Your task to perform on an android device: toggle notification dots Image 0: 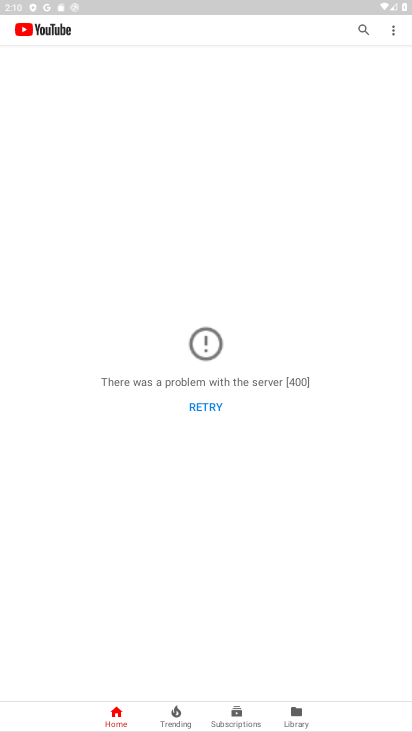
Step 0: press home button
Your task to perform on an android device: toggle notification dots Image 1: 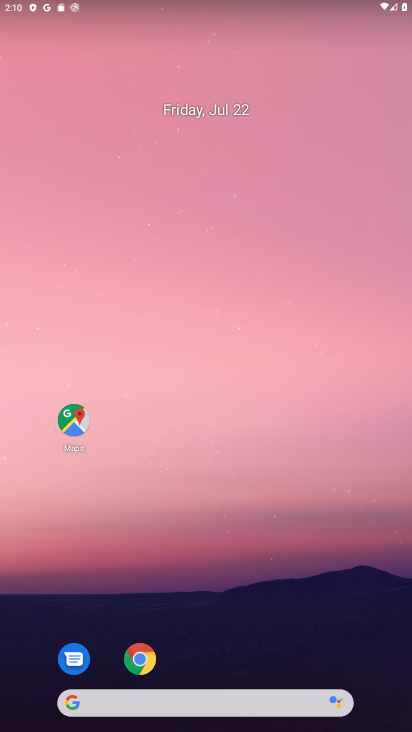
Step 1: drag from (173, 604) to (144, 4)
Your task to perform on an android device: toggle notification dots Image 2: 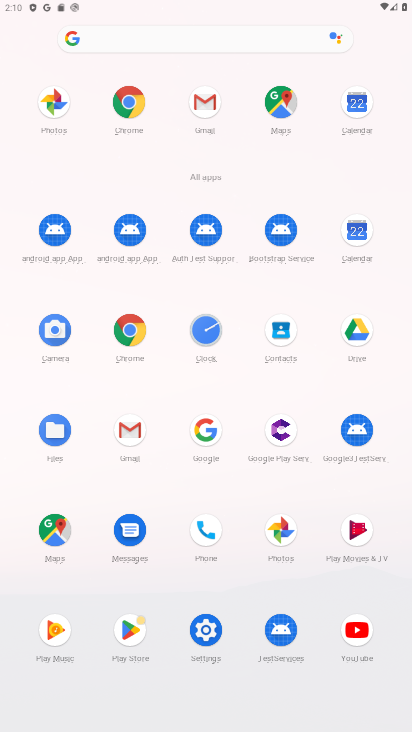
Step 2: click (210, 634)
Your task to perform on an android device: toggle notification dots Image 3: 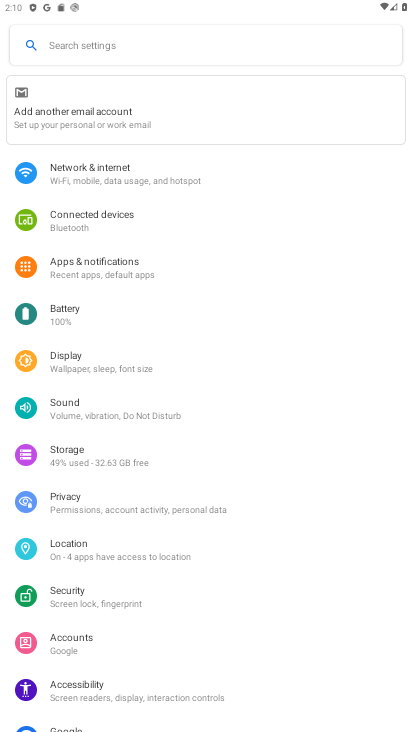
Step 3: click (48, 282)
Your task to perform on an android device: toggle notification dots Image 4: 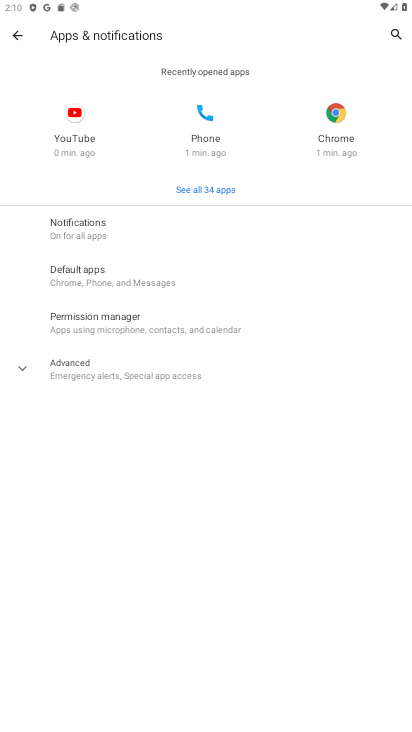
Step 4: click (77, 227)
Your task to perform on an android device: toggle notification dots Image 5: 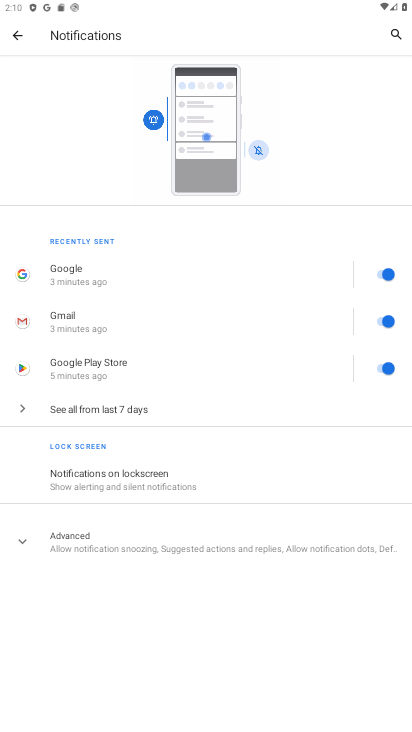
Step 5: click (59, 544)
Your task to perform on an android device: toggle notification dots Image 6: 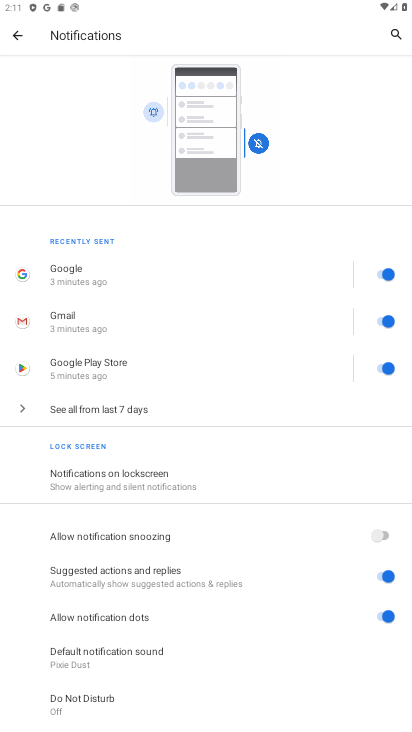
Step 6: click (377, 619)
Your task to perform on an android device: toggle notification dots Image 7: 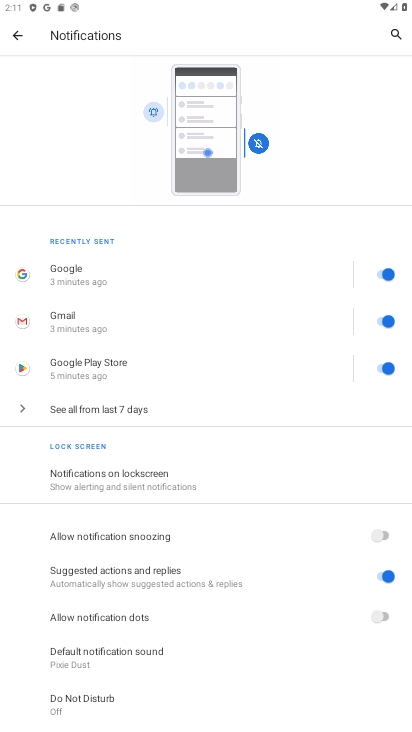
Step 7: task complete